Your task to perform on an android device: delete browsing data in the chrome app Image 0: 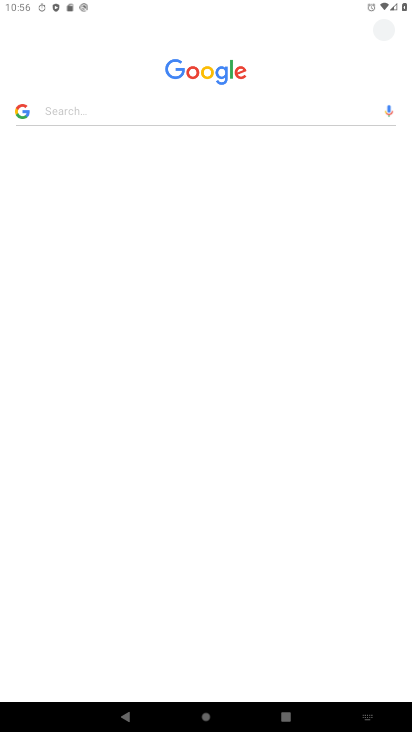
Step 0: press home button
Your task to perform on an android device: delete browsing data in the chrome app Image 1: 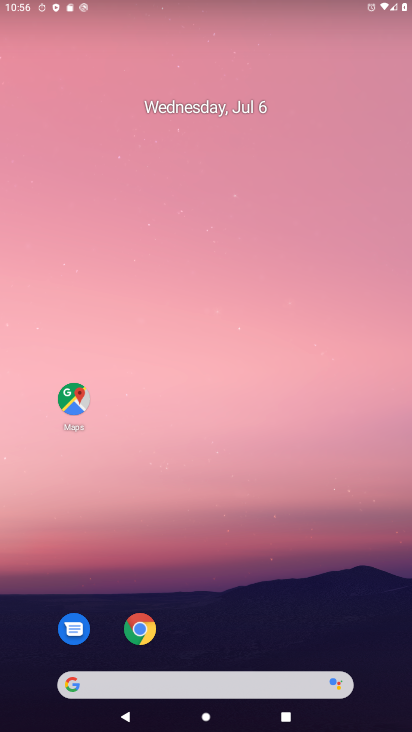
Step 1: drag from (211, 649) to (222, 177)
Your task to perform on an android device: delete browsing data in the chrome app Image 2: 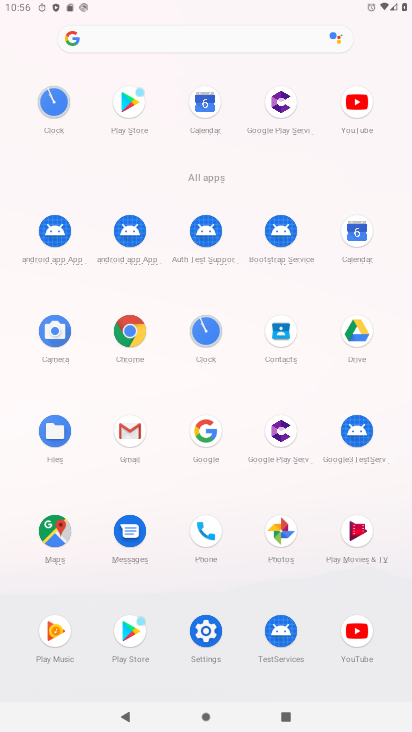
Step 2: click (131, 330)
Your task to perform on an android device: delete browsing data in the chrome app Image 3: 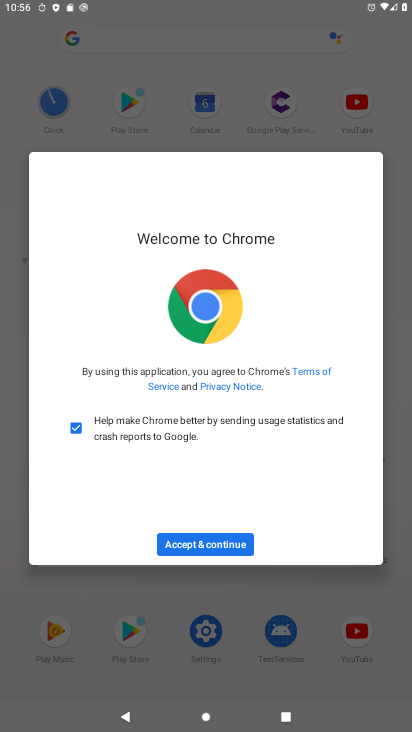
Step 3: click (184, 542)
Your task to perform on an android device: delete browsing data in the chrome app Image 4: 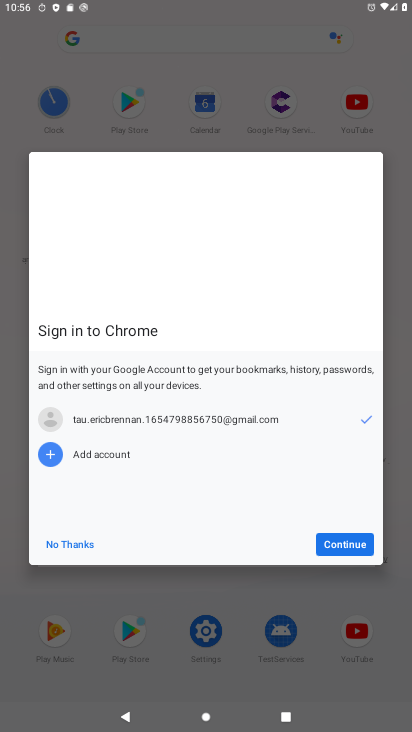
Step 4: click (343, 547)
Your task to perform on an android device: delete browsing data in the chrome app Image 5: 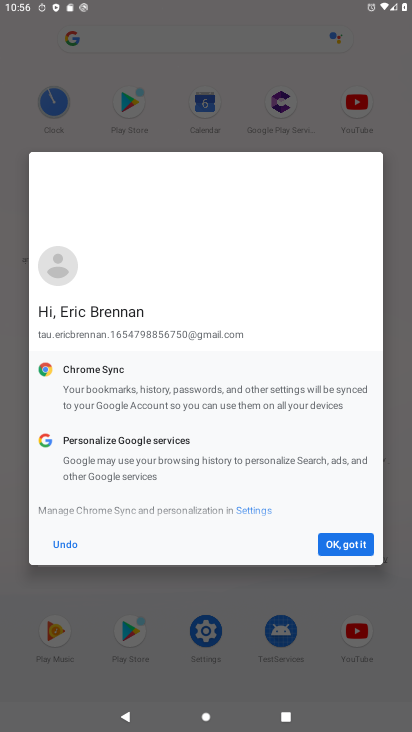
Step 5: click (343, 547)
Your task to perform on an android device: delete browsing data in the chrome app Image 6: 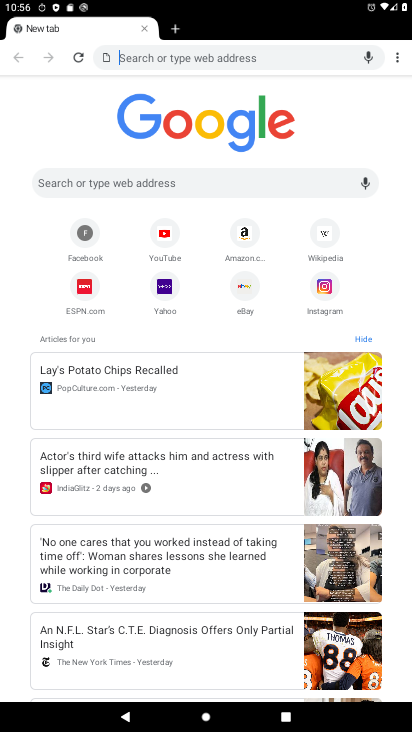
Step 6: click (390, 61)
Your task to perform on an android device: delete browsing data in the chrome app Image 7: 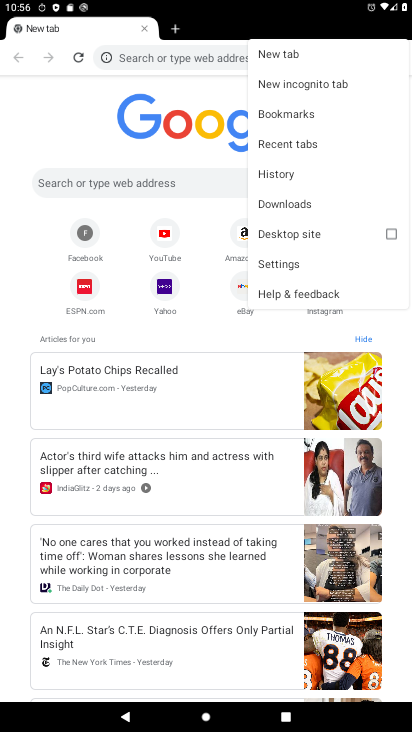
Step 7: click (297, 262)
Your task to perform on an android device: delete browsing data in the chrome app Image 8: 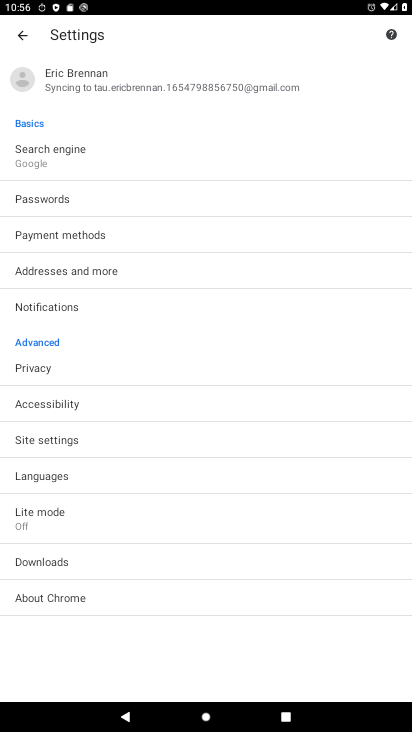
Step 8: click (49, 369)
Your task to perform on an android device: delete browsing data in the chrome app Image 9: 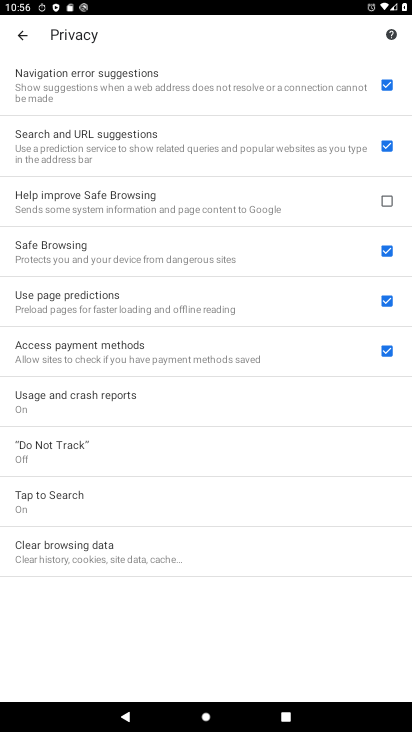
Step 9: click (71, 552)
Your task to perform on an android device: delete browsing data in the chrome app Image 10: 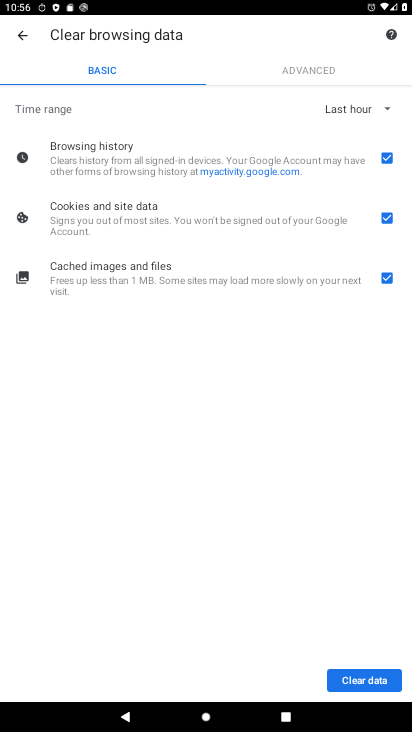
Step 10: click (366, 678)
Your task to perform on an android device: delete browsing data in the chrome app Image 11: 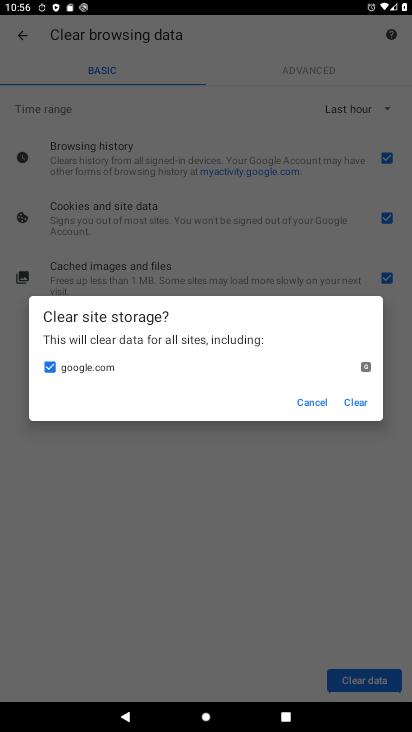
Step 11: click (362, 395)
Your task to perform on an android device: delete browsing data in the chrome app Image 12: 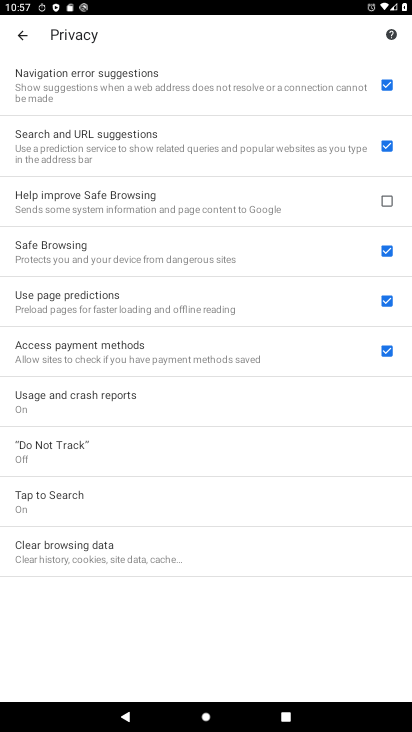
Step 12: task complete